Your task to perform on an android device: Go to Yahoo.com Image 0: 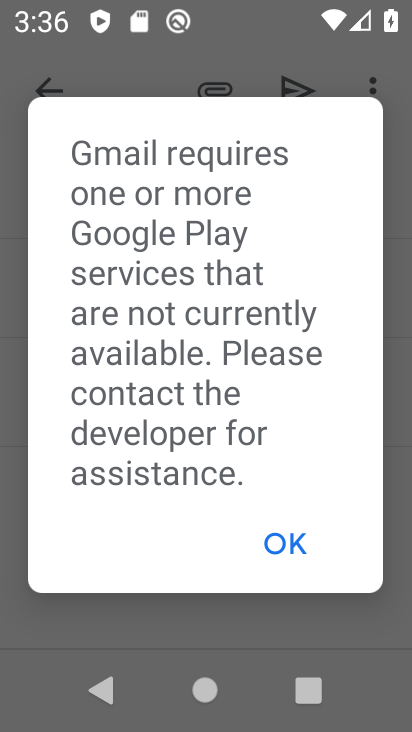
Step 0: drag from (358, 510) to (323, 162)
Your task to perform on an android device: Go to Yahoo.com Image 1: 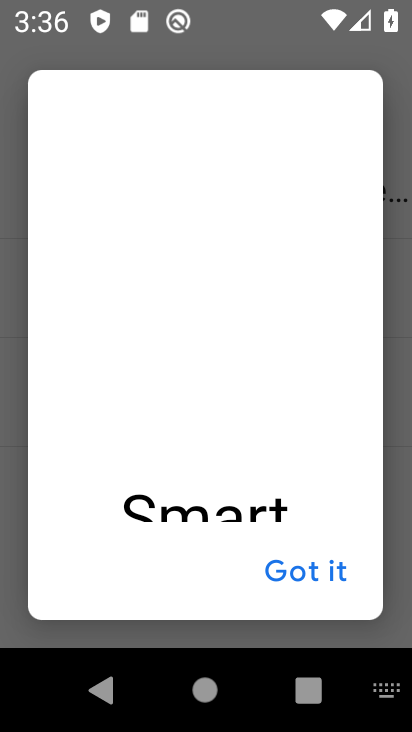
Step 1: click (308, 580)
Your task to perform on an android device: Go to Yahoo.com Image 2: 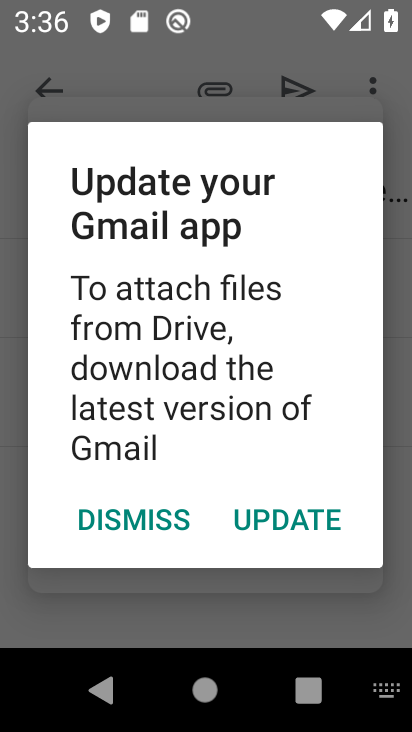
Step 2: press back button
Your task to perform on an android device: Go to Yahoo.com Image 3: 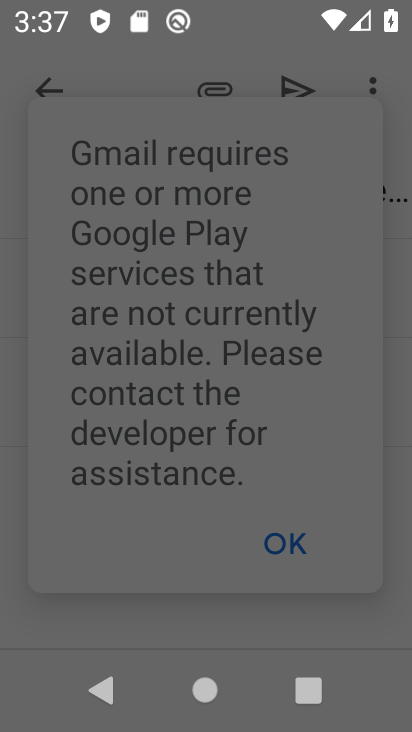
Step 3: press back button
Your task to perform on an android device: Go to Yahoo.com Image 4: 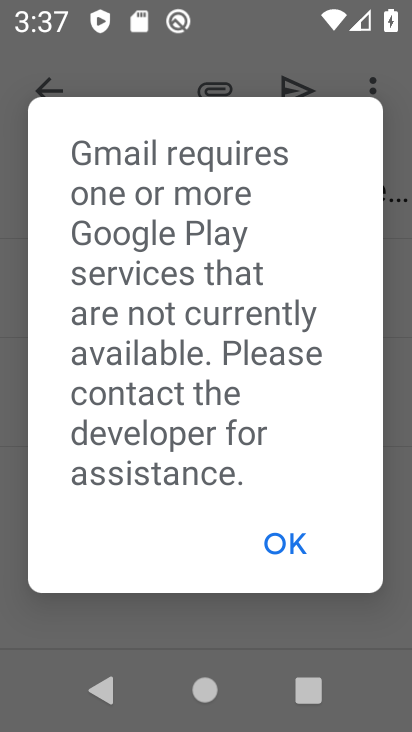
Step 4: press home button
Your task to perform on an android device: Go to Yahoo.com Image 5: 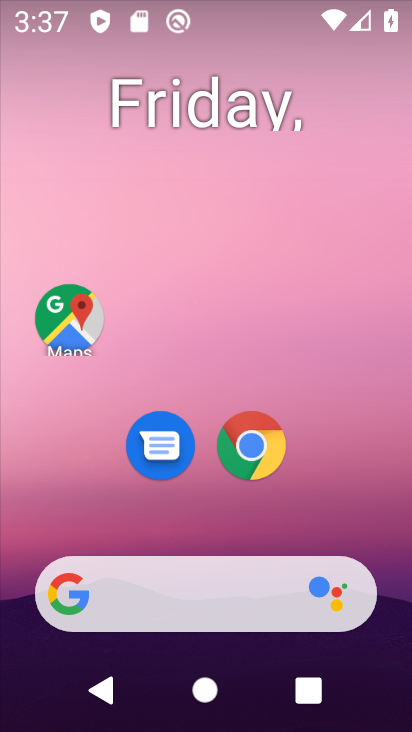
Step 5: click (243, 442)
Your task to perform on an android device: Go to Yahoo.com Image 6: 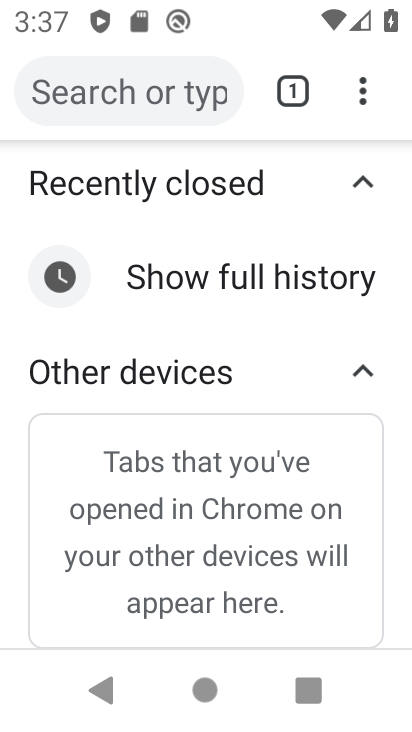
Step 6: click (158, 65)
Your task to perform on an android device: Go to Yahoo.com Image 7: 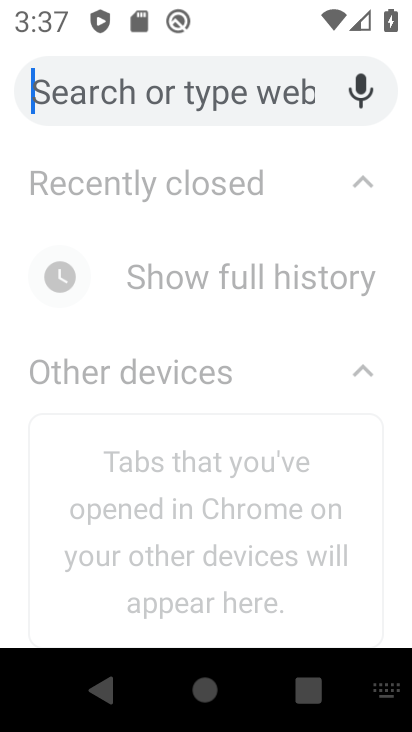
Step 7: type "Yahoo.com"
Your task to perform on an android device: Go to Yahoo.com Image 8: 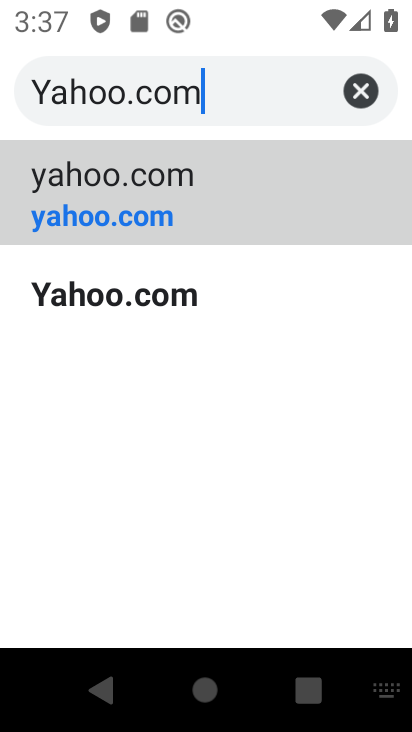
Step 8: type ""
Your task to perform on an android device: Go to Yahoo.com Image 9: 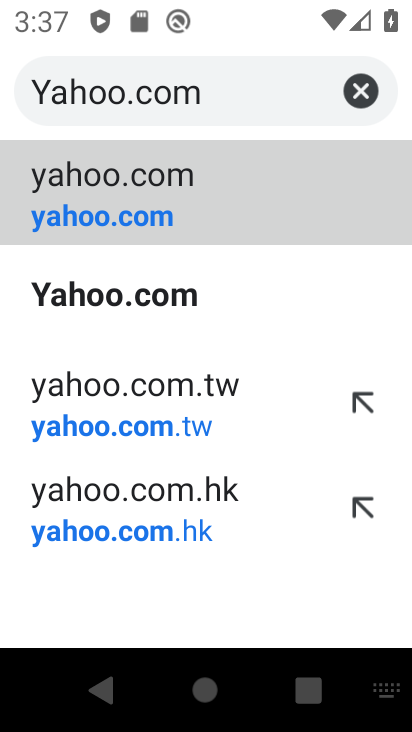
Step 9: click (206, 172)
Your task to perform on an android device: Go to Yahoo.com Image 10: 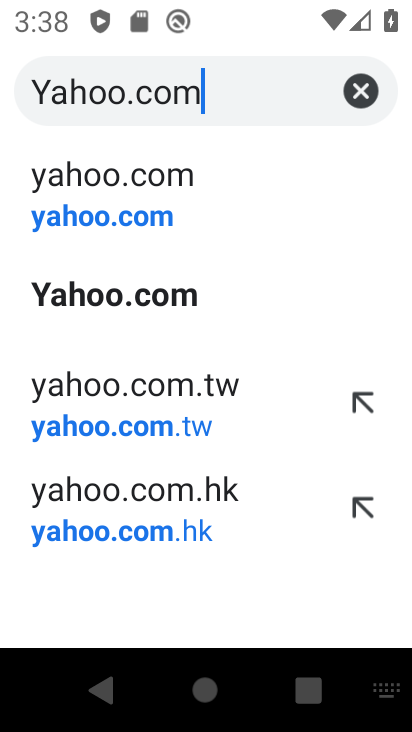
Step 10: click (212, 179)
Your task to perform on an android device: Go to Yahoo.com Image 11: 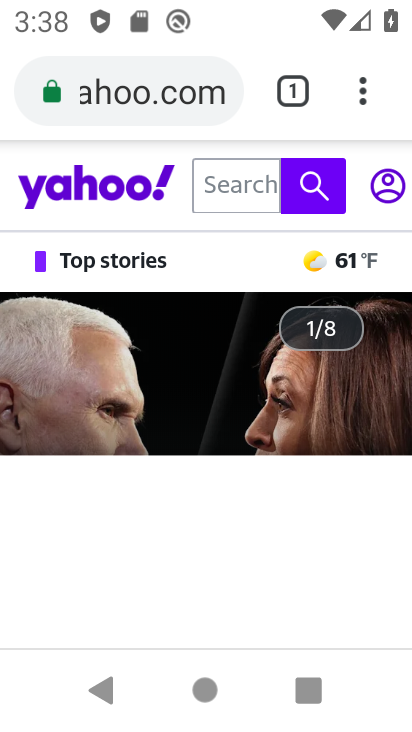
Step 11: drag from (227, 499) to (225, 138)
Your task to perform on an android device: Go to Yahoo.com Image 12: 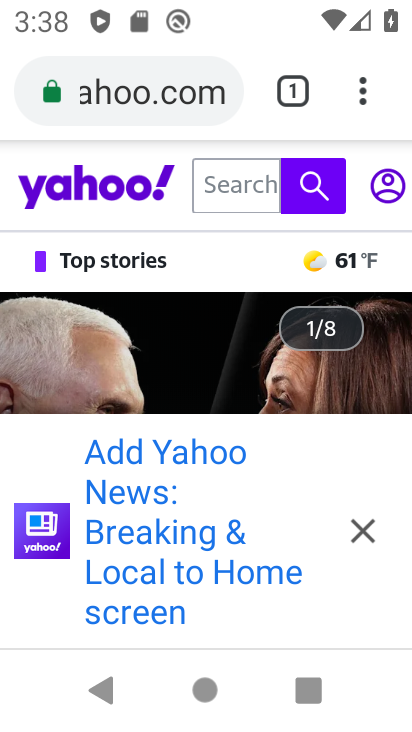
Step 12: click (359, 530)
Your task to perform on an android device: Go to Yahoo.com Image 13: 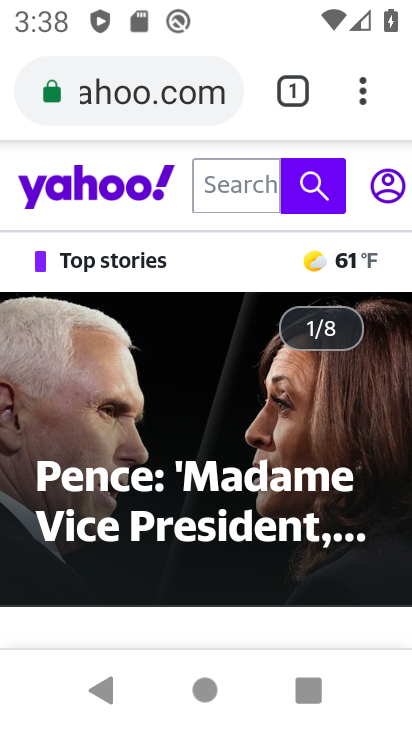
Step 13: task complete